Your task to perform on an android device: change notifications settings Image 0: 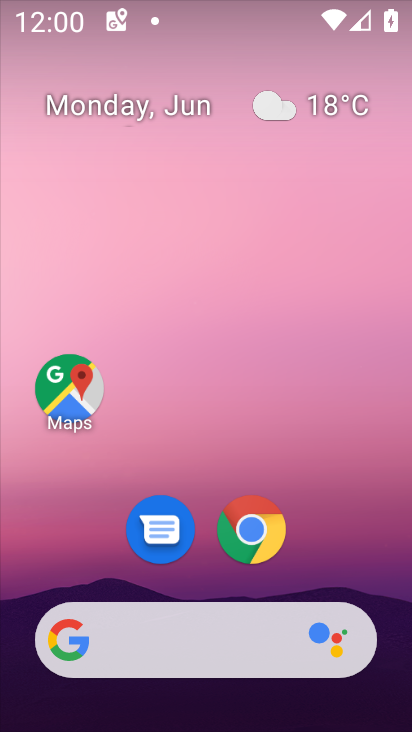
Step 0: drag from (339, 553) to (400, 9)
Your task to perform on an android device: change notifications settings Image 1: 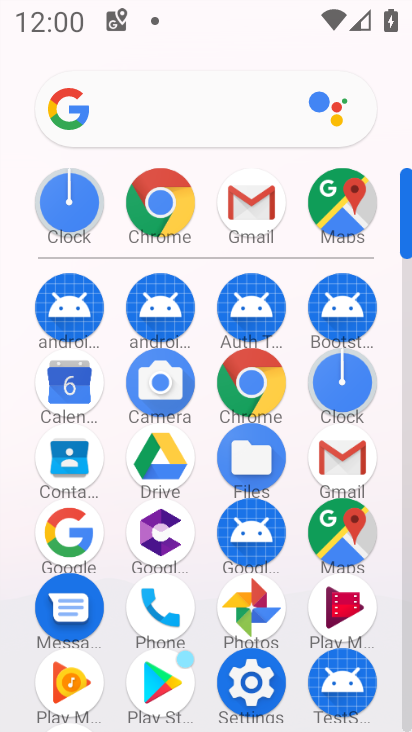
Step 1: drag from (389, 537) to (409, 158)
Your task to perform on an android device: change notifications settings Image 2: 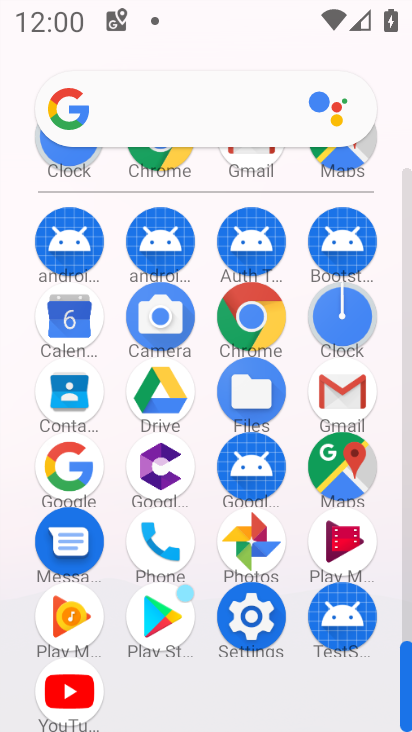
Step 2: click (252, 608)
Your task to perform on an android device: change notifications settings Image 3: 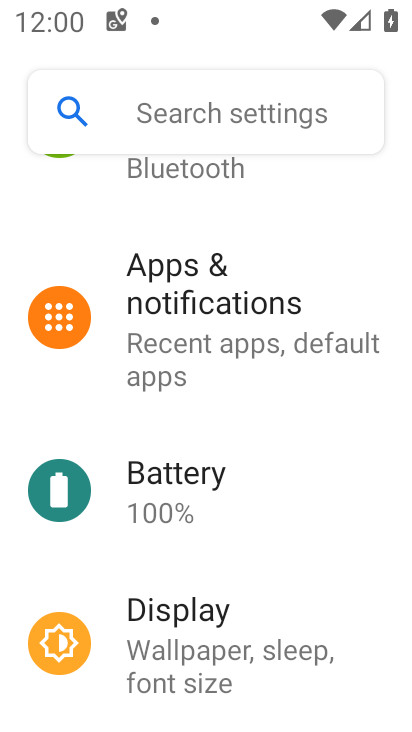
Step 3: click (217, 303)
Your task to perform on an android device: change notifications settings Image 4: 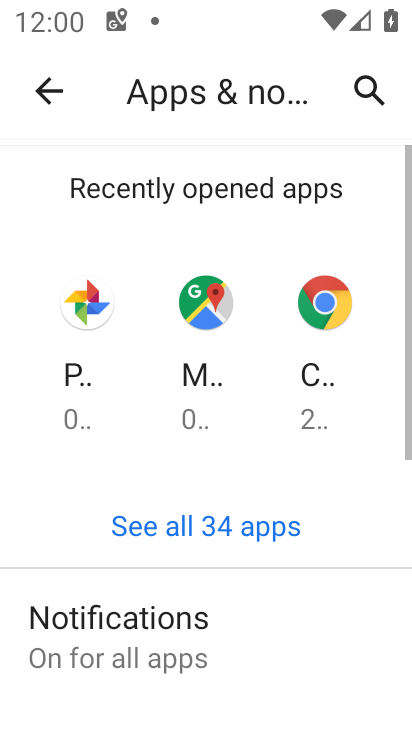
Step 4: click (127, 657)
Your task to perform on an android device: change notifications settings Image 5: 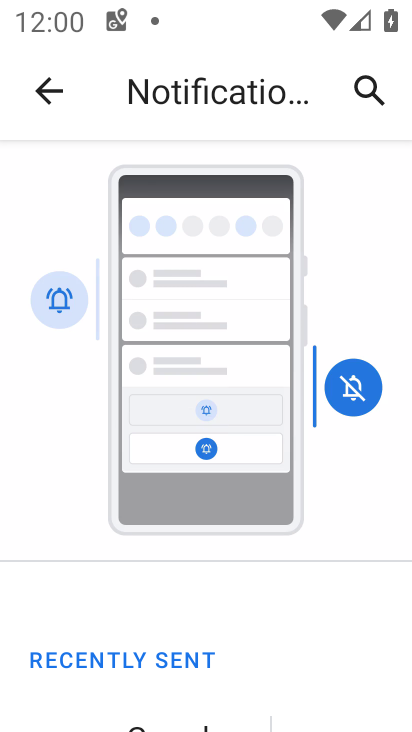
Step 5: task complete